Your task to perform on an android device: open app "Google Find My Device" Image 0: 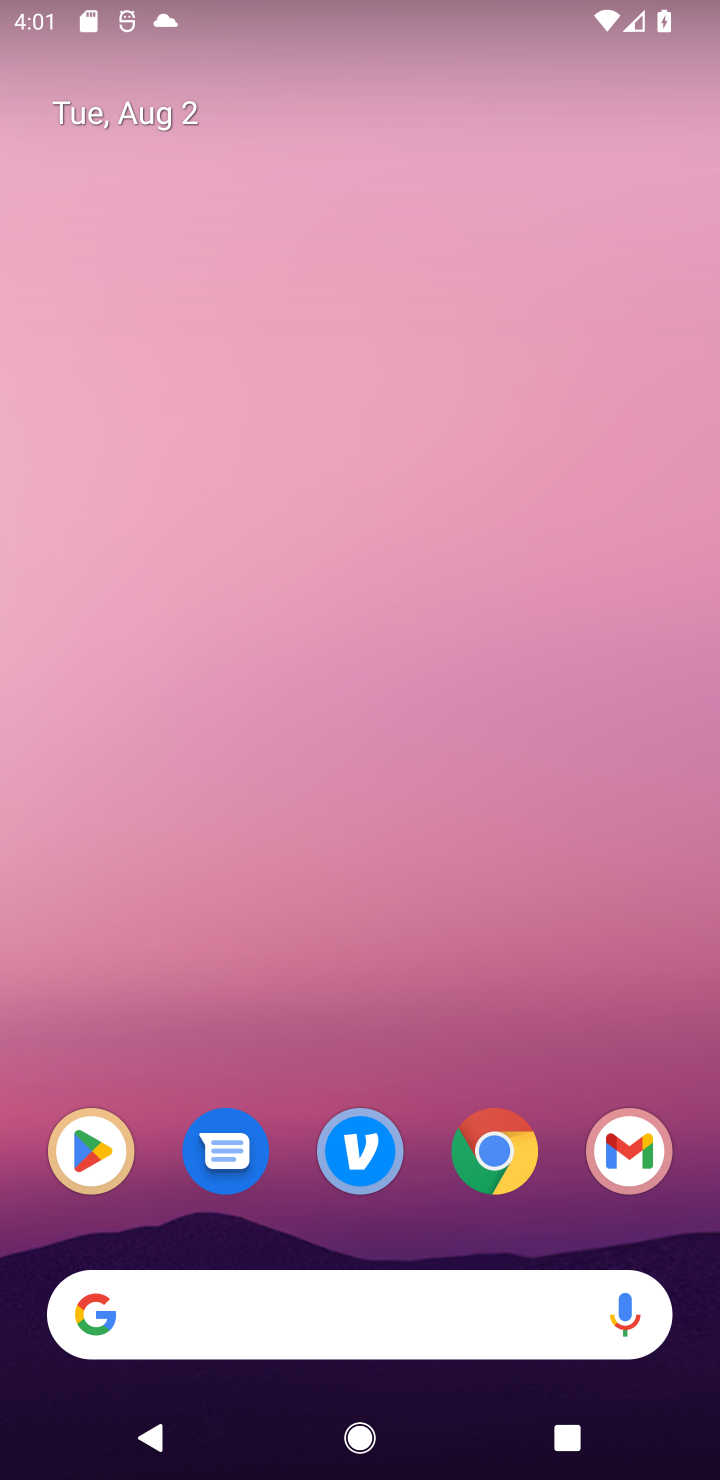
Step 0: drag from (423, 1424) to (424, 782)
Your task to perform on an android device: open app "Google Find My Device" Image 1: 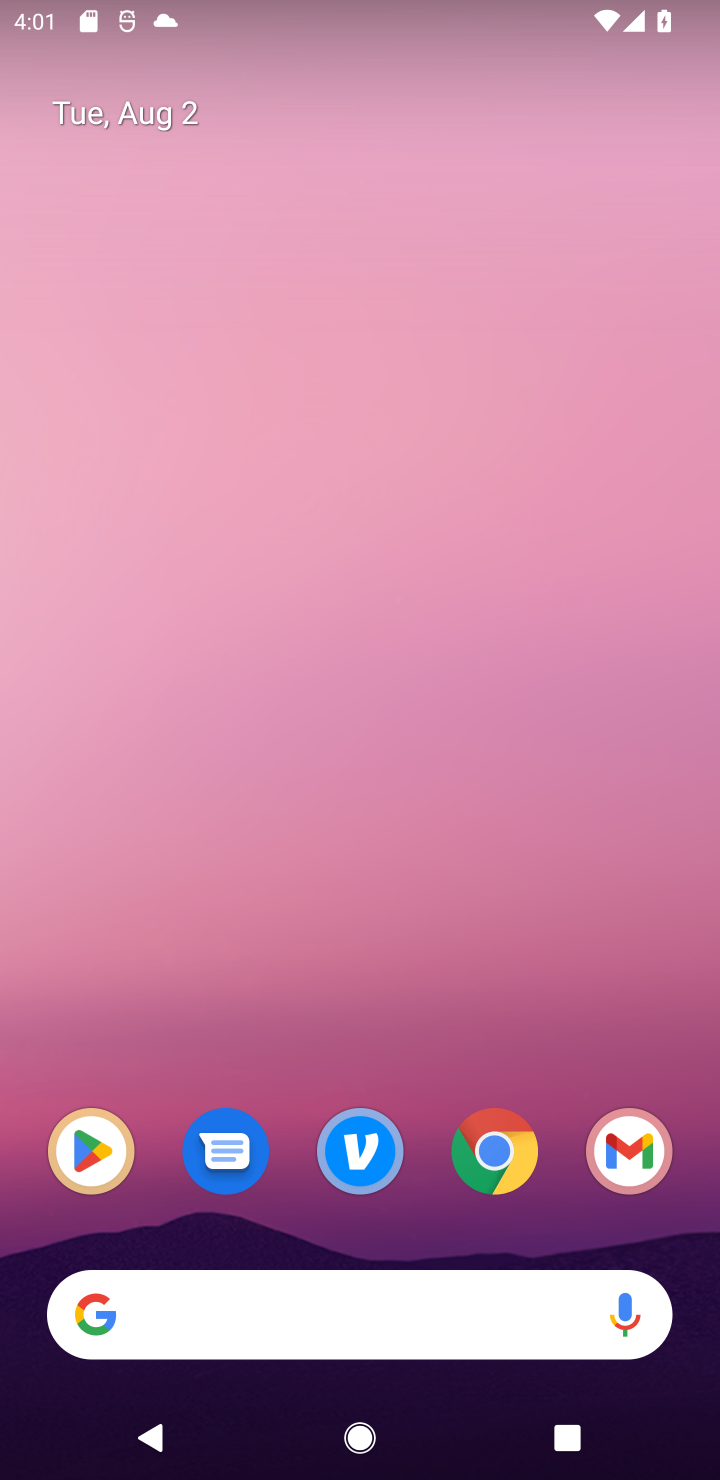
Step 1: drag from (442, 1314) to (600, 325)
Your task to perform on an android device: open app "Google Find My Device" Image 2: 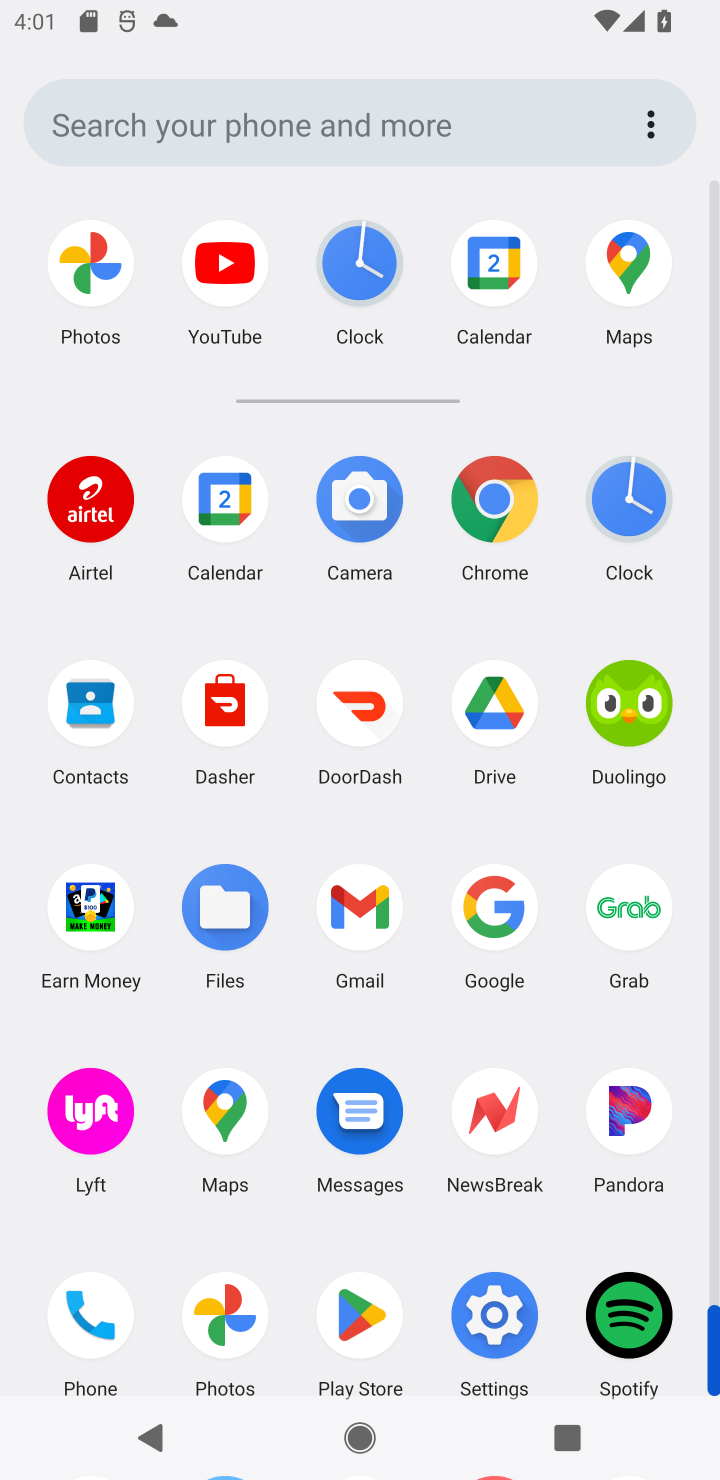
Step 2: click (355, 1296)
Your task to perform on an android device: open app "Google Find My Device" Image 3: 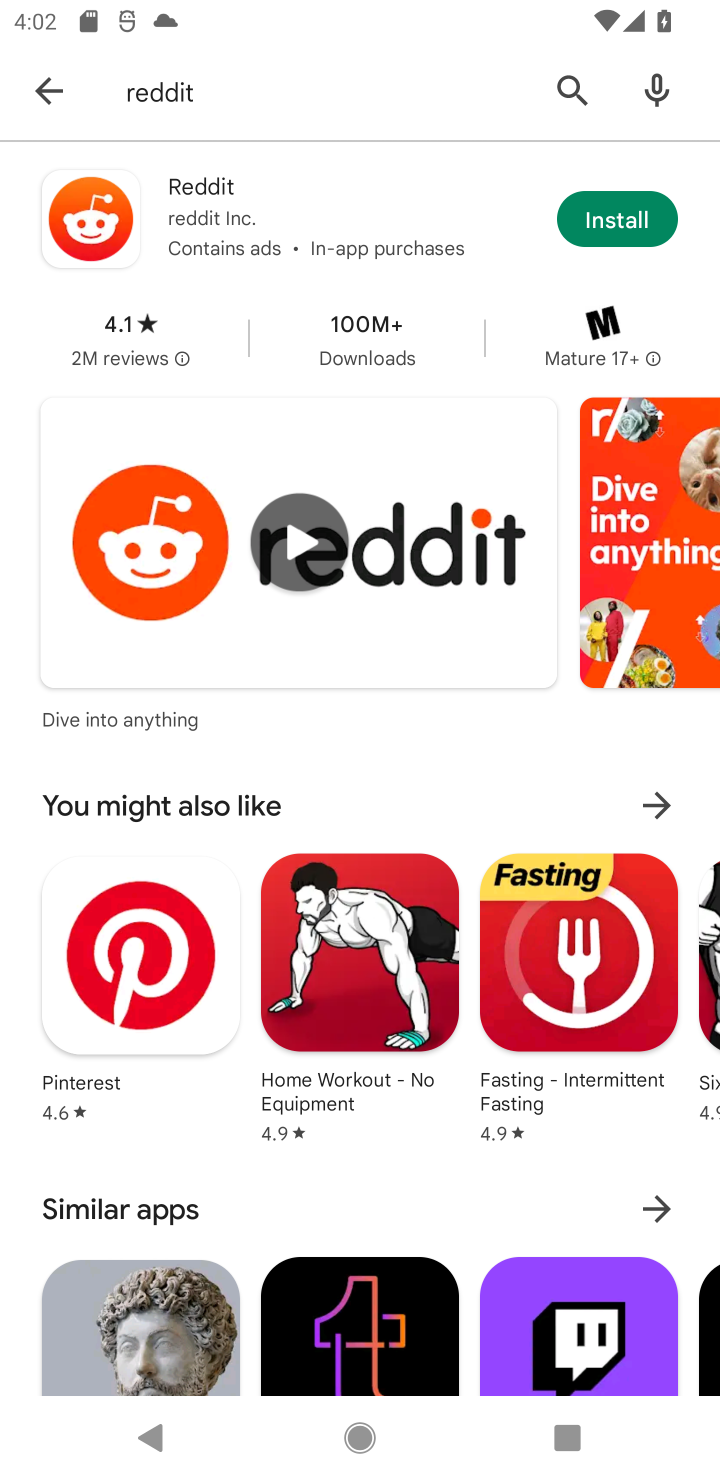
Step 3: click (55, 85)
Your task to perform on an android device: open app "Google Find My Device" Image 4: 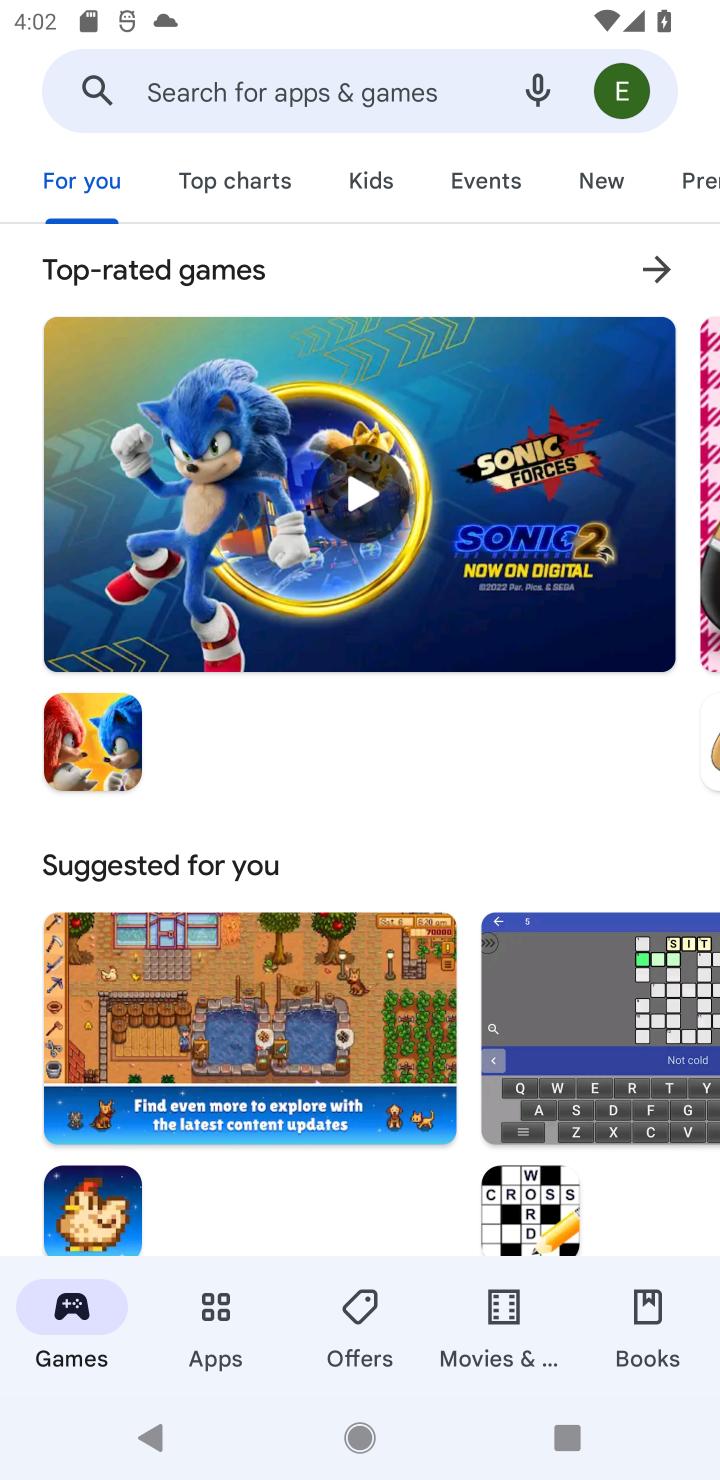
Step 4: click (333, 107)
Your task to perform on an android device: open app "Google Find My Device" Image 5: 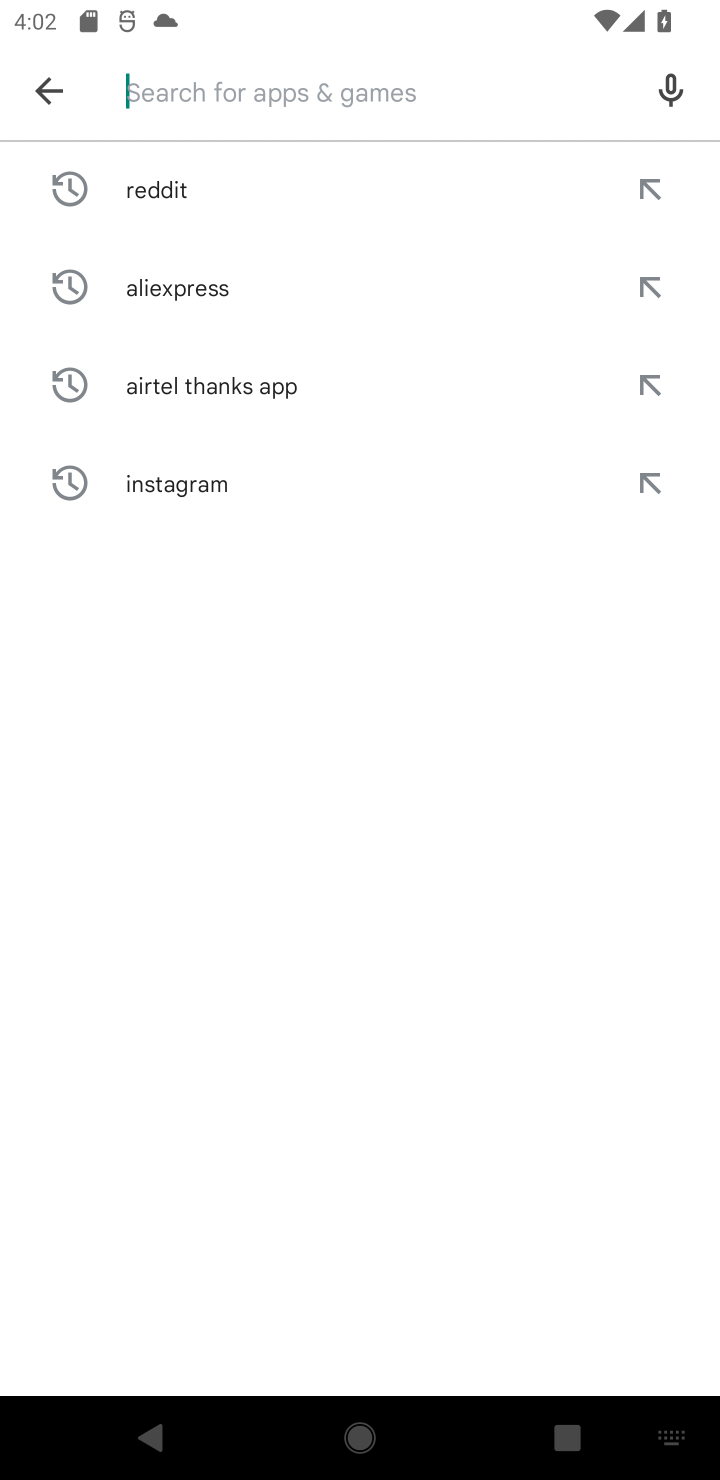
Step 5: type "Google Find My Device"
Your task to perform on an android device: open app "Google Find My Device" Image 6: 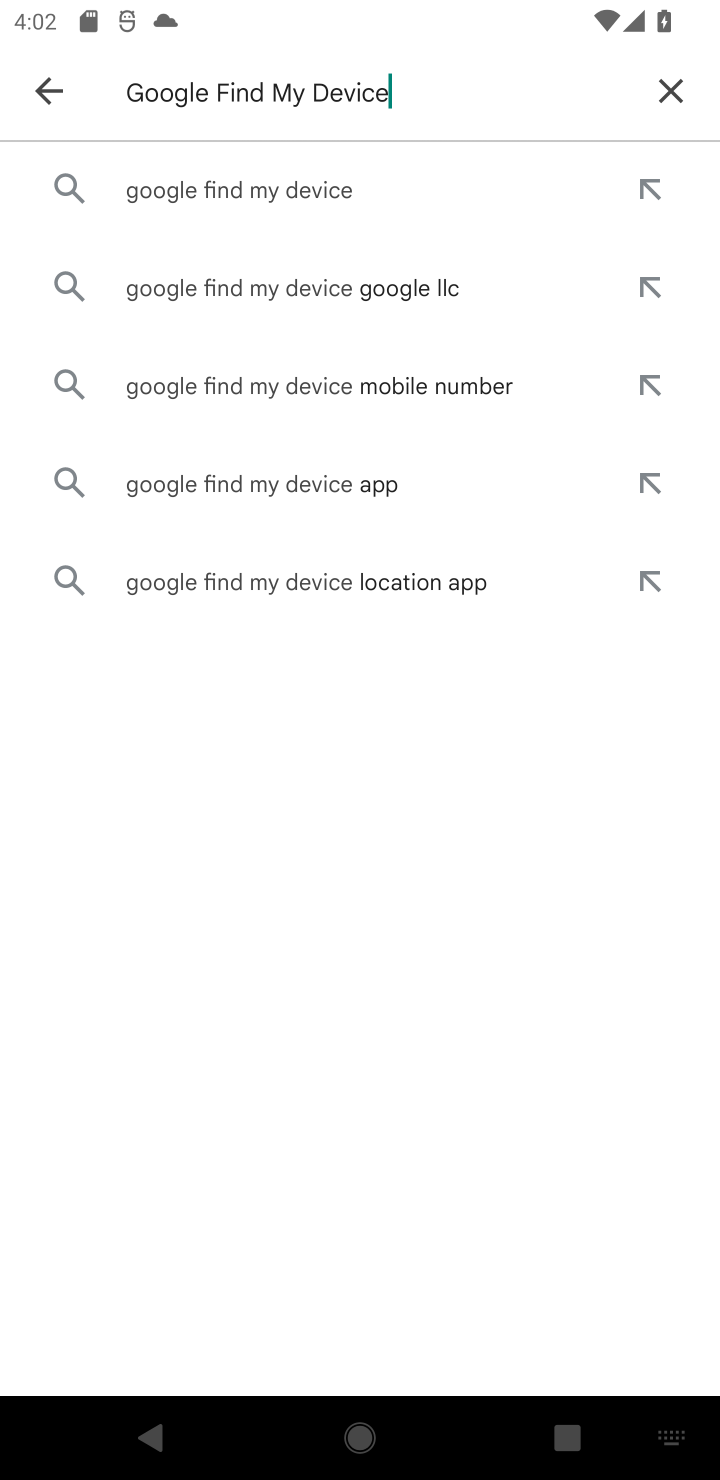
Step 6: click (315, 193)
Your task to perform on an android device: open app "Google Find My Device" Image 7: 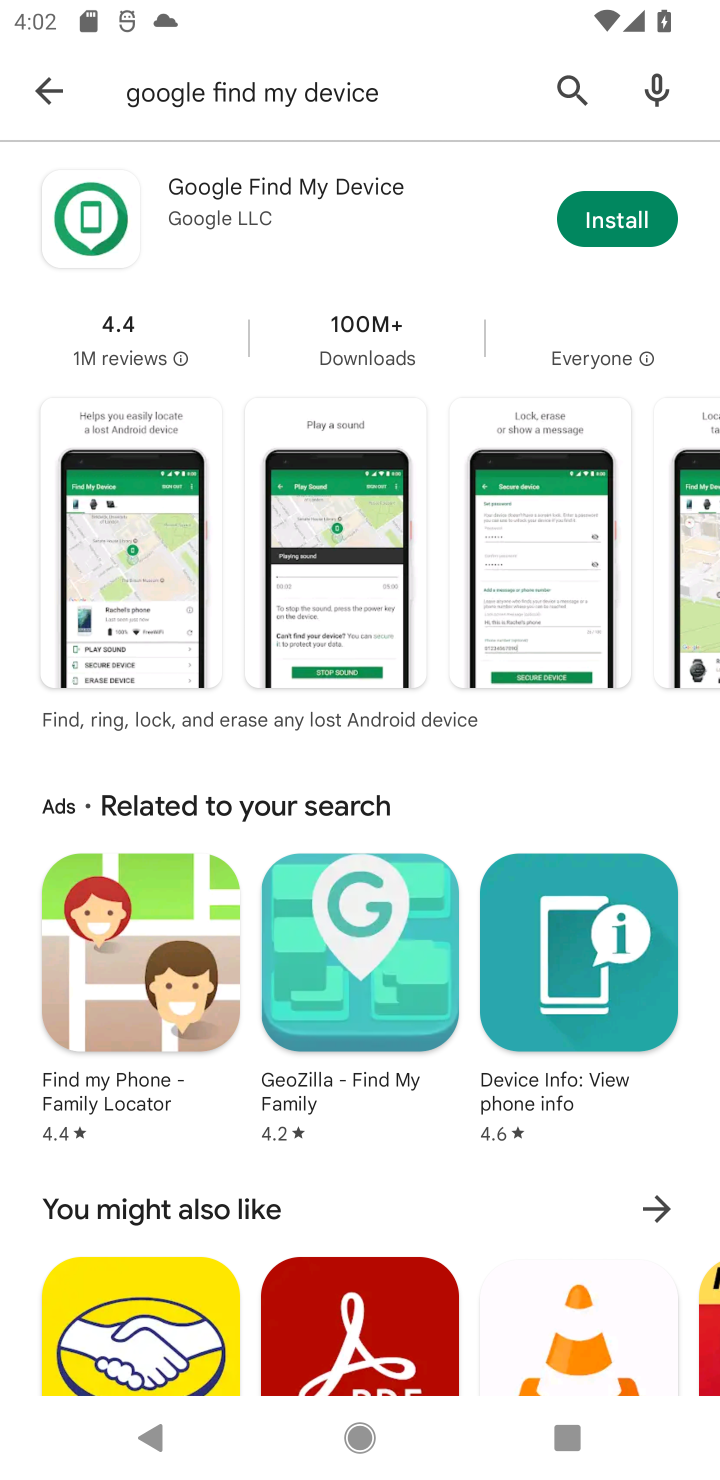
Step 7: task complete